Your task to perform on an android device: uninstall "LiveIn - Share Your Moment" Image 0: 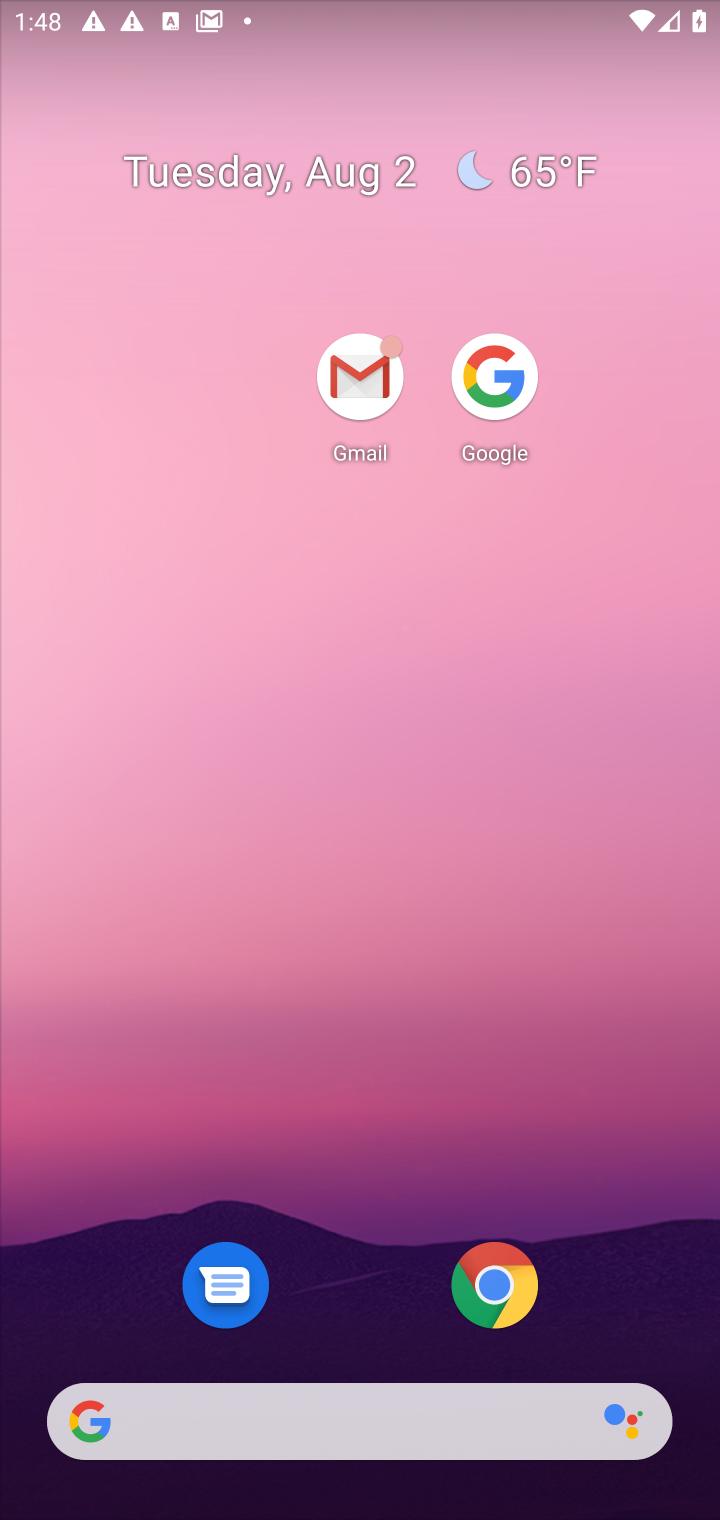
Step 0: drag from (608, 1232) to (610, 270)
Your task to perform on an android device: uninstall "LiveIn - Share Your Moment" Image 1: 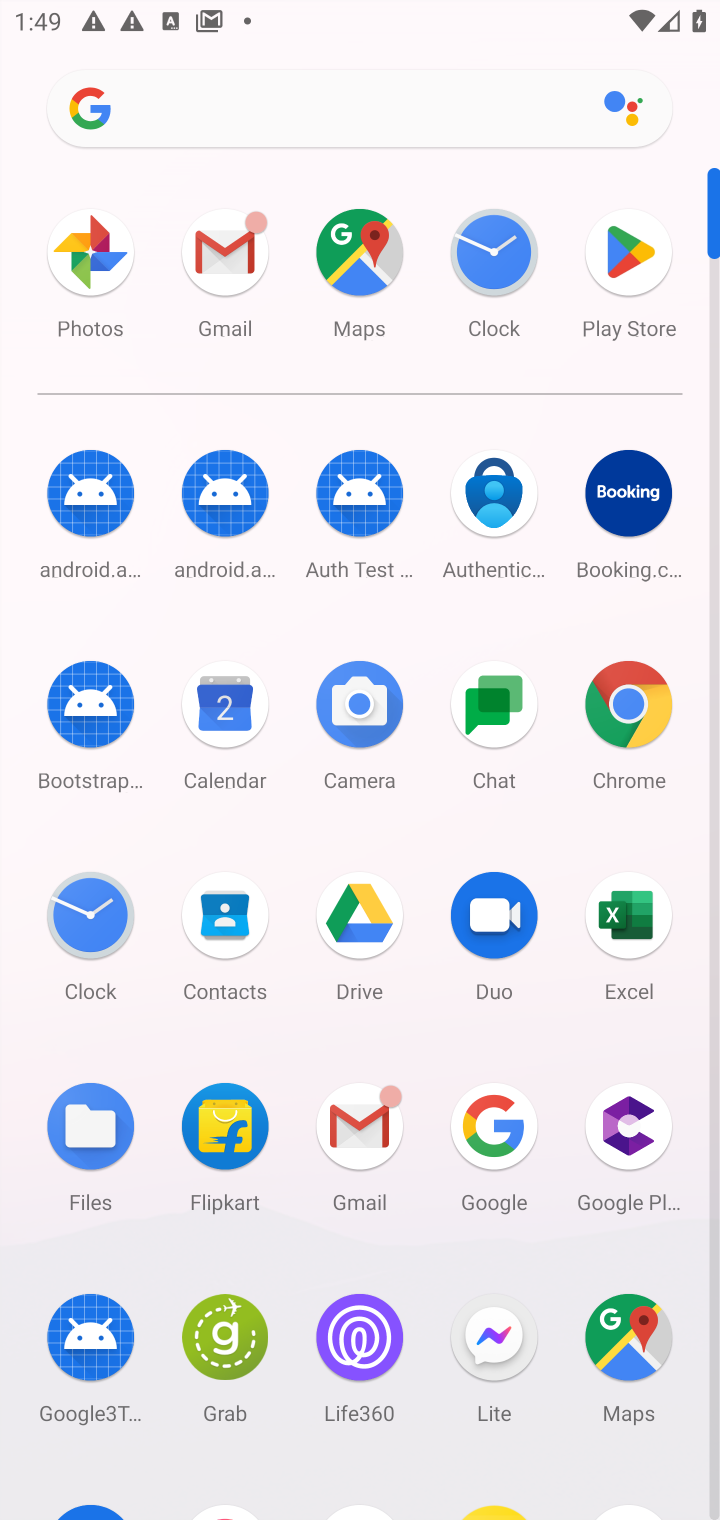
Step 1: drag from (434, 1047) to (452, 468)
Your task to perform on an android device: uninstall "LiveIn - Share Your Moment" Image 2: 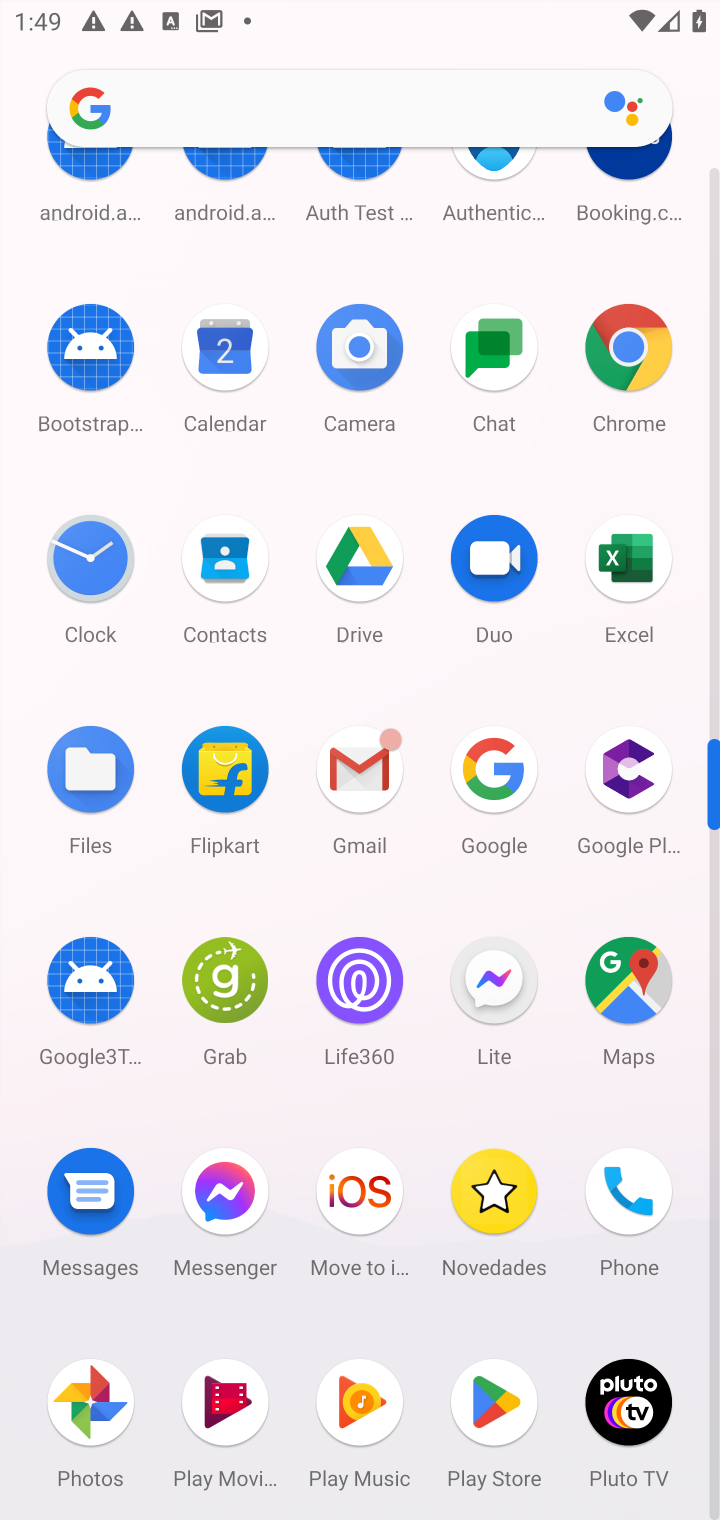
Step 2: click (494, 1395)
Your task to perform on an android device: uninstall "LiveIn - Share Your Moment" Image 3: 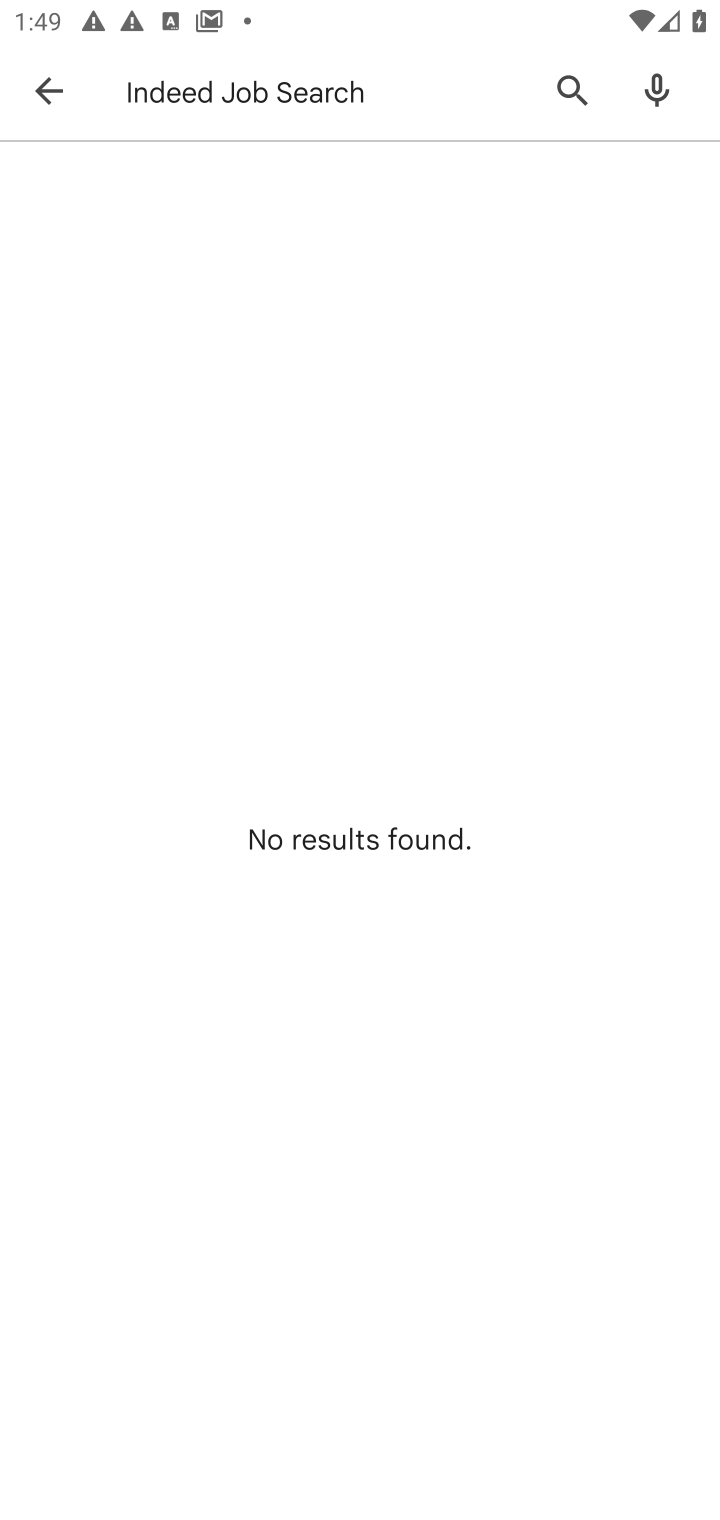
Step 3: click (445, 112)
Your task to perform on an android device: uninstall "LiveIn - Share Your Moment" Image 4: 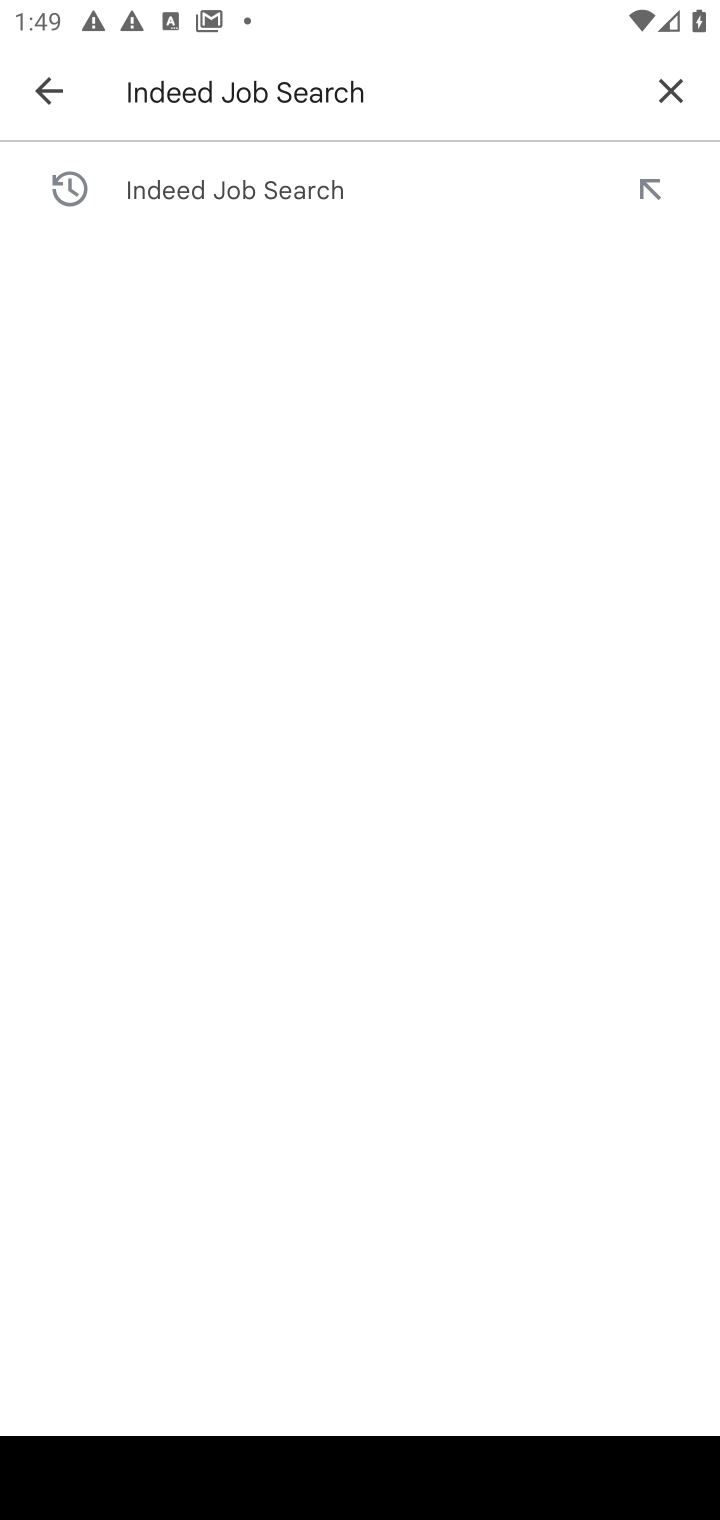
Step 4: click (664, 85)
Your task to perform on an android device: uninstall "LiveIn - Share Your Moment" Image 5: 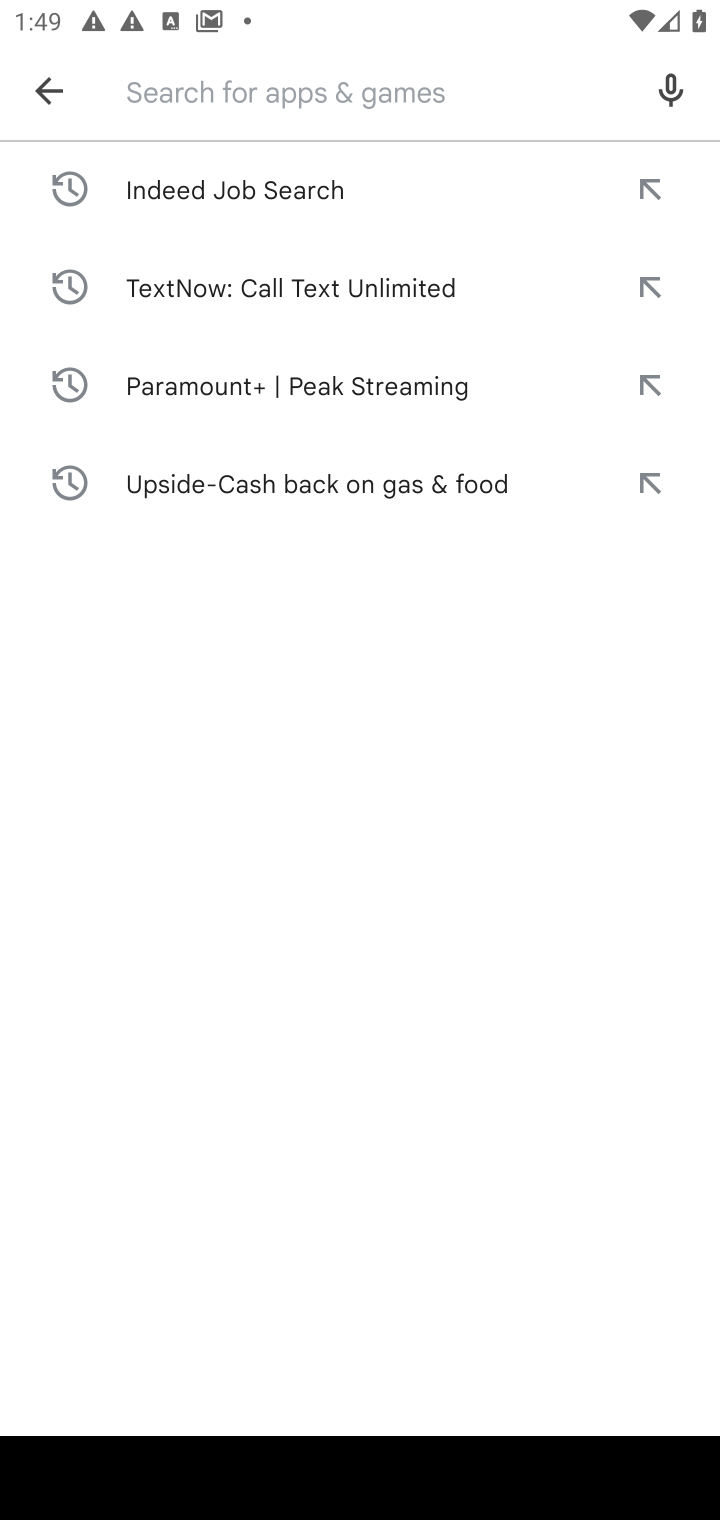
Step 5: type "Liveln - Share your Moment"
Your task to perform on an android device: uninstall "LiveIn - Share Your Moment" Image 6: 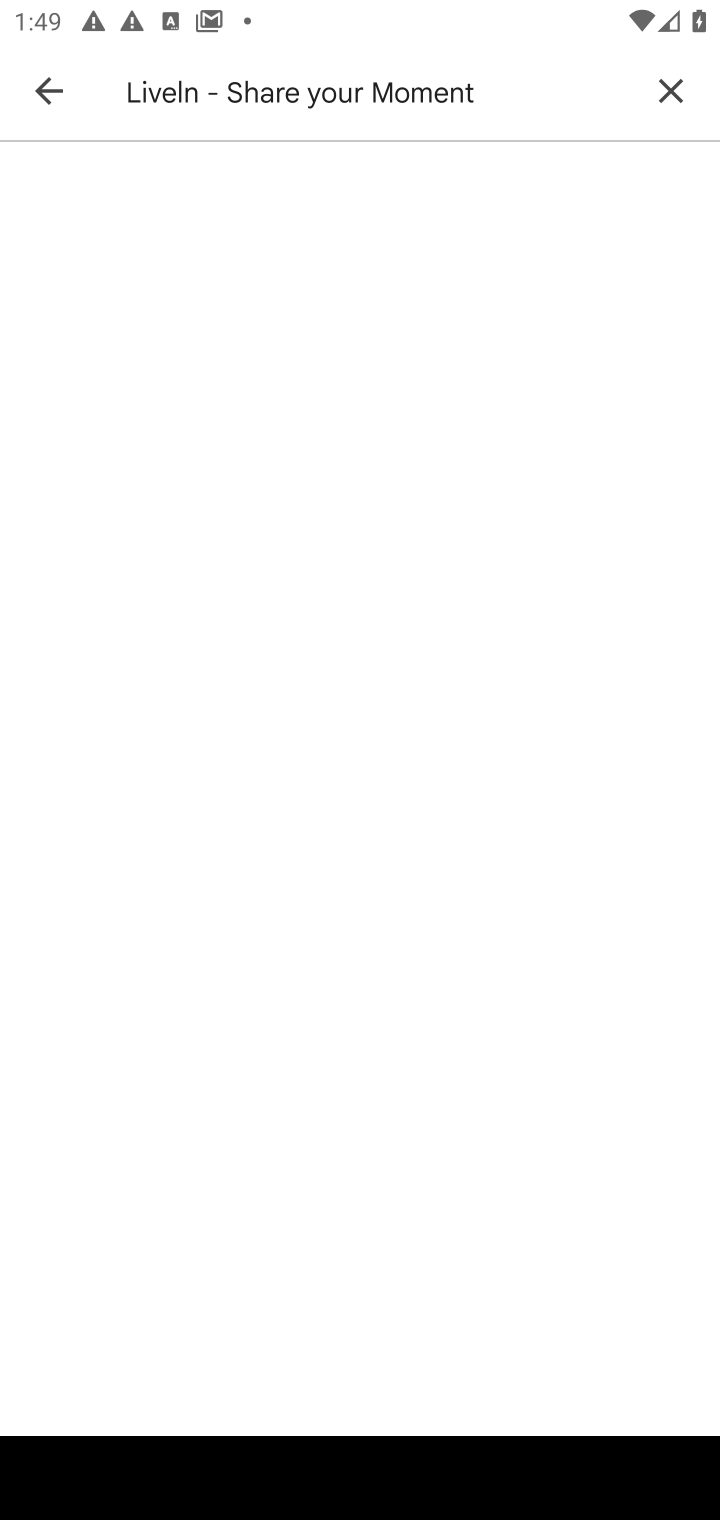
Step 6: press enter
Your task to perform on an android device: uninstall "LiveIn - Share Your Moment" Image 7: 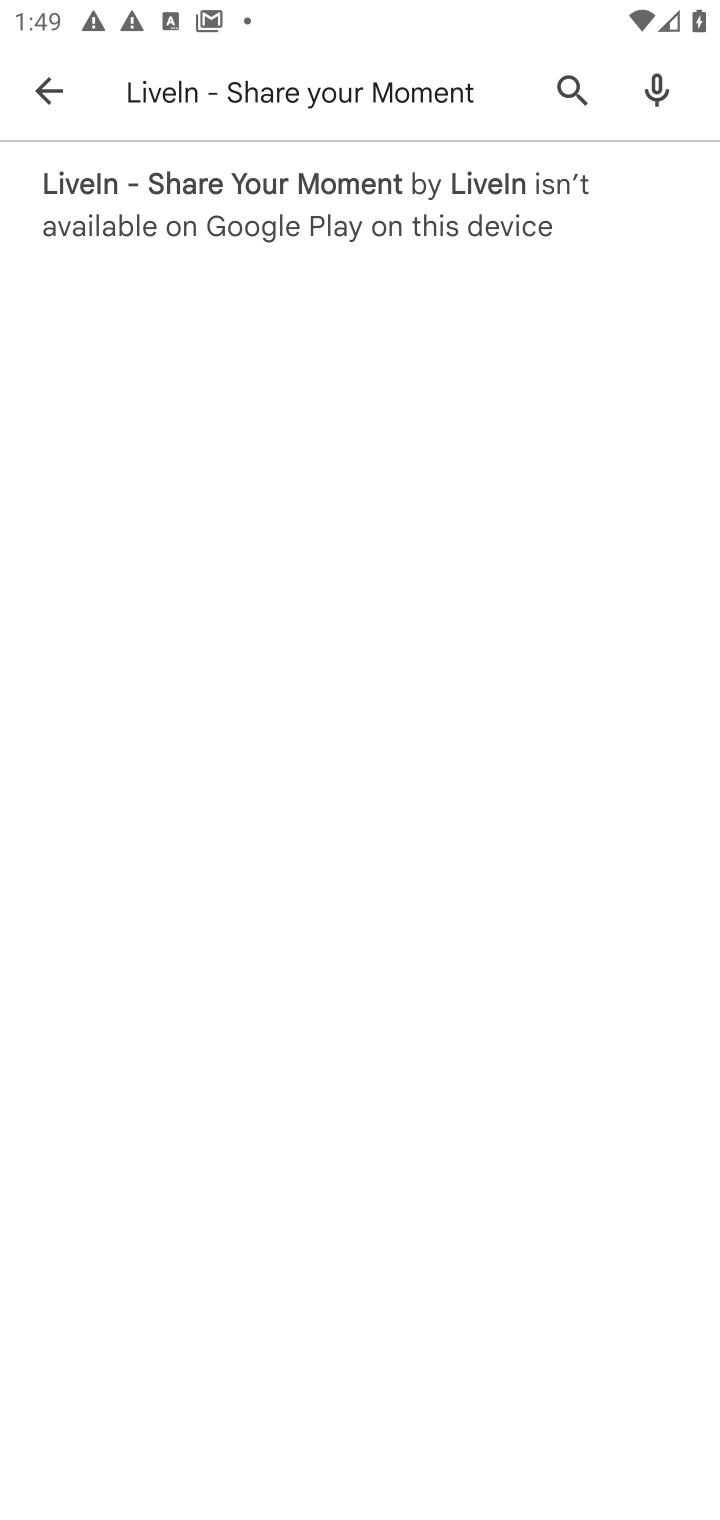
Step 7: task complete